Your task to perform on an android device: toggle javascript in the chrome app Image 0: 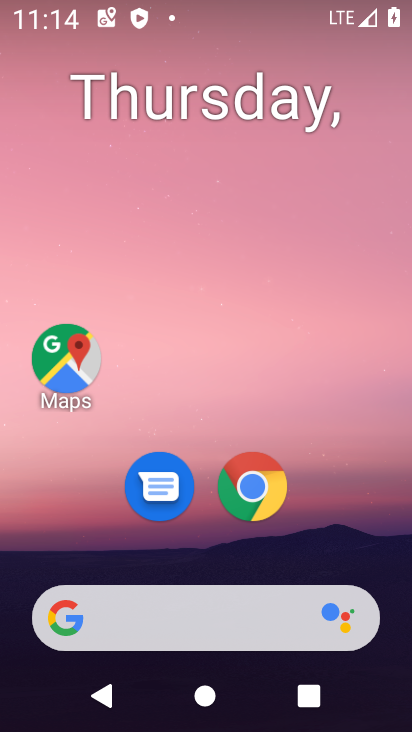
Step 0: click (253, 491)
Your task to perform on an android device: toggle javascript in the chrome app Image 1: 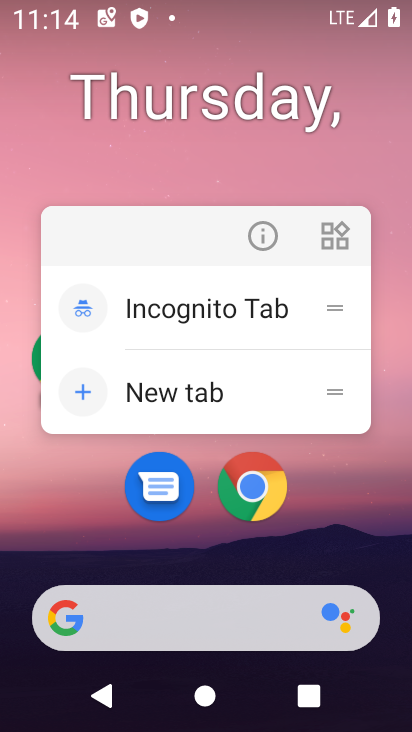
Step 1: click (247, 493)
Your task to perform on an android device: toggle javascript in the chrome app Image 2: 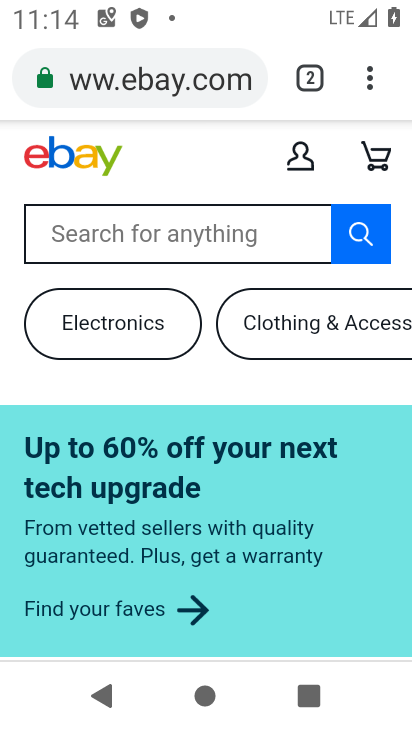
Step 2: drag from (367, 81) to (140, 556)
Your task to perform on an android device: toggle javascript in the chrome app Image 3: 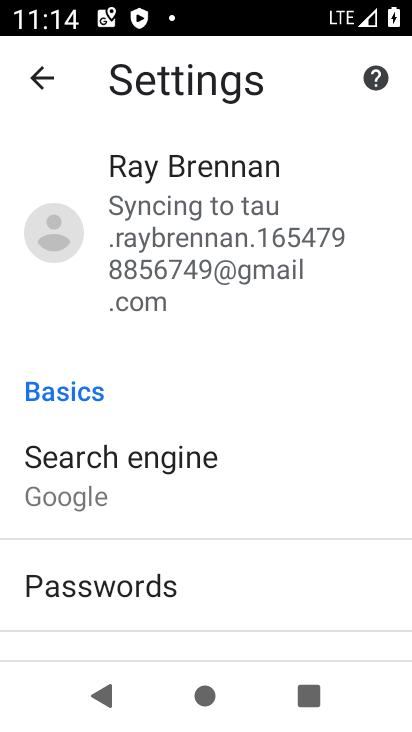
Step 3: drag from (102, 600) to (254, 107)
Your task to perform on an android device: toggle javascript in the chrome app Image 4: 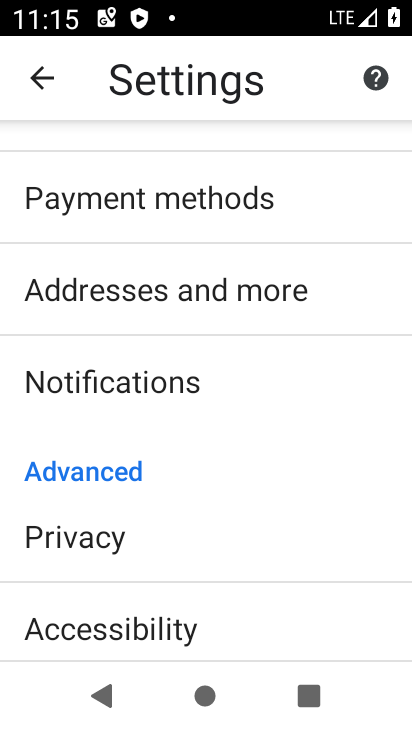
Step 4: drag from (270, 637) to (357, 187)
Your task to perform on an android device: toggle javascript in the chrome app Image 5: 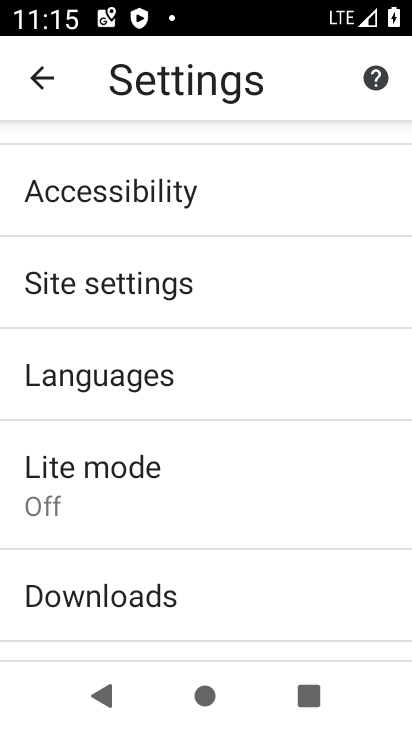
Step 5: click (129, 303)
Your task to perform on an android device: toggle javascript in the chrome app Image 6: 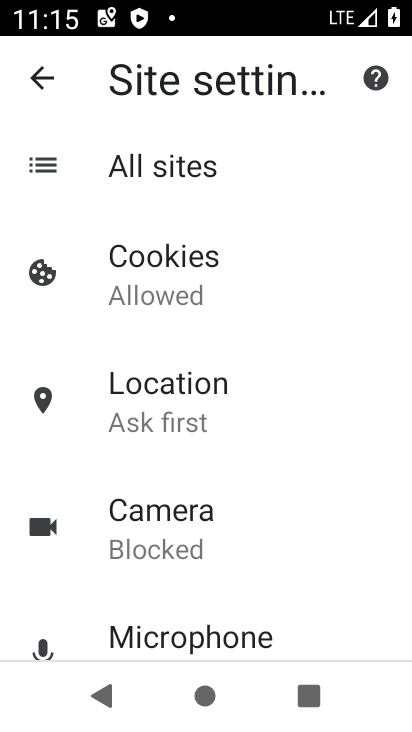
Step 6: drag from (182, 569) to (299, 136)
Your task to perform on an android device: toggle javascript in the chrome app Image 7: 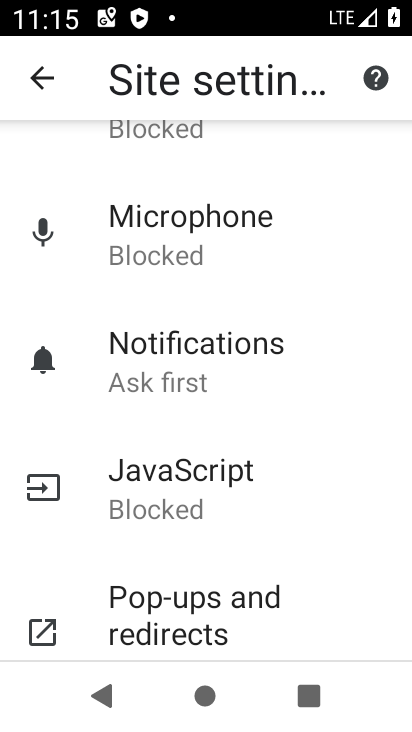
Step 7: click (207, 481)
Your task to perform on an android device: toggle javascript in the chrome app Image 8: 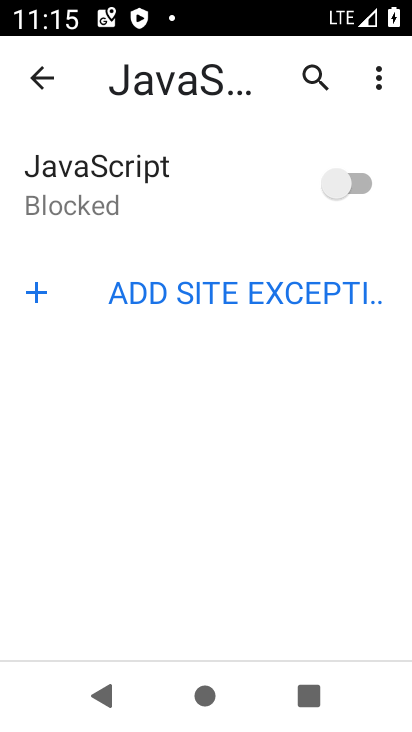
Step 8: click (327, 186)
Your task to perform on an android device: toggle javascript in the chrome app Image 9: 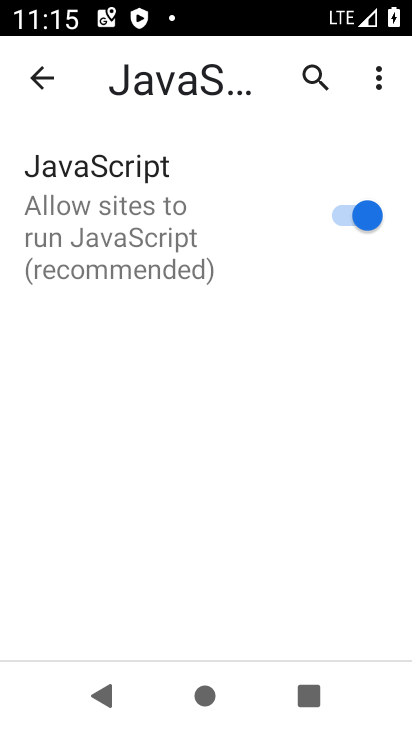
Step 9: task complete